Your task to perform on an android device: turn off data saver in the chrome app Image 0: 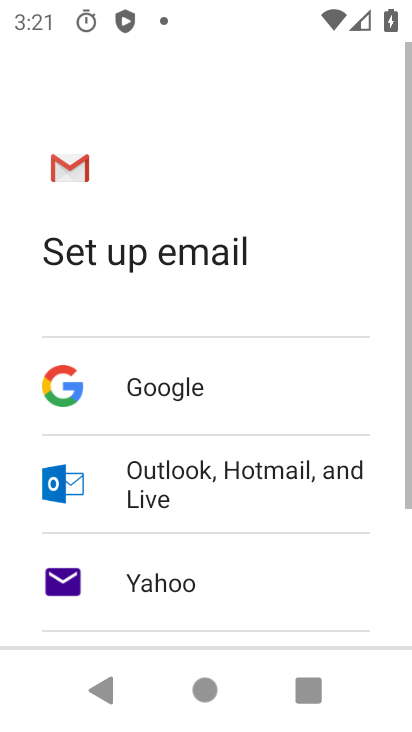
Step 0: press home button
Your task to perform on an android device: turn off data saver in the chrome app Image 1: 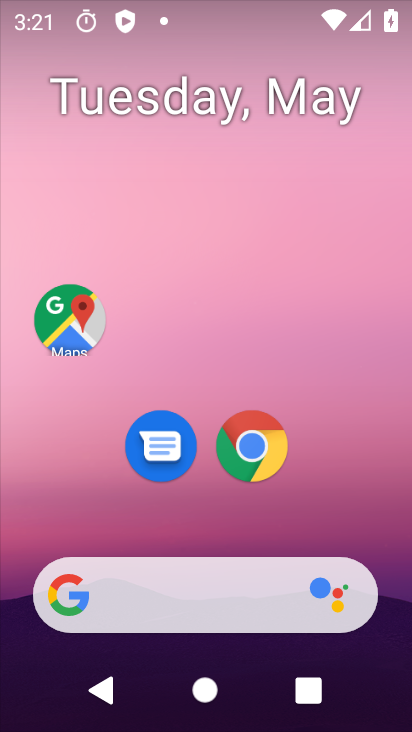
Step 1: click (252, 455)
Your task to perform on an android device: turn off data saver in the chrome app Image 2: 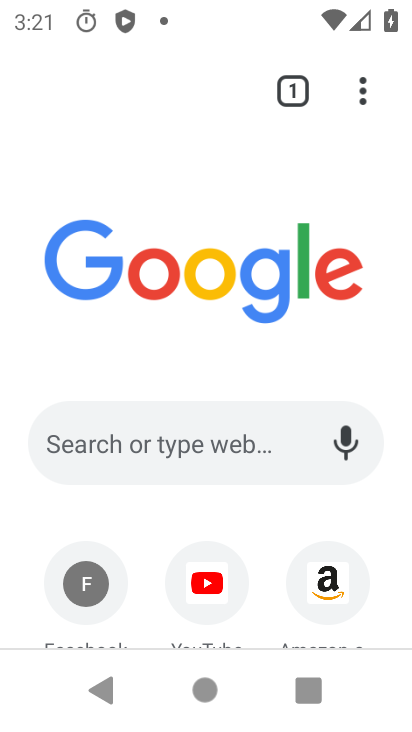
Step 2: click (363, 100)
Your task to perform on an android device: turn off data saver in the chrome app Image 3: 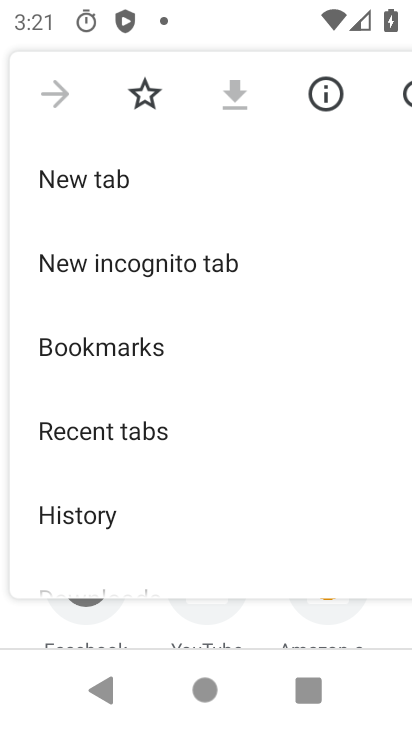
Step 3: drag from (118, 488) to (144, 140)
Your task to perform on an android device: turn off data saver in the chrome app Image 4: 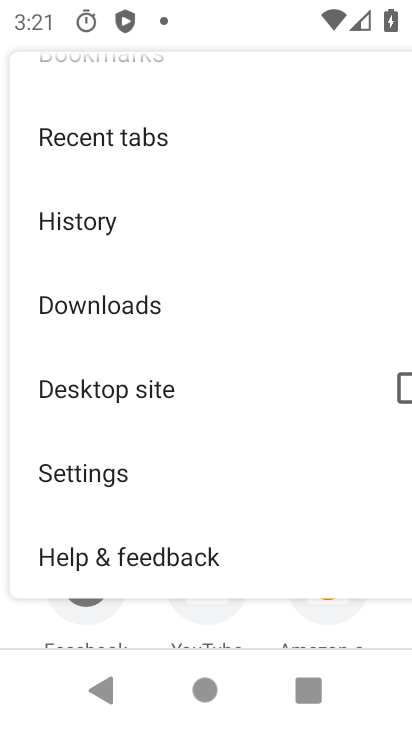
Step 4: click (86, 462)
Your task to perform on an android device: turn off data saver in the chrome app Image 5: 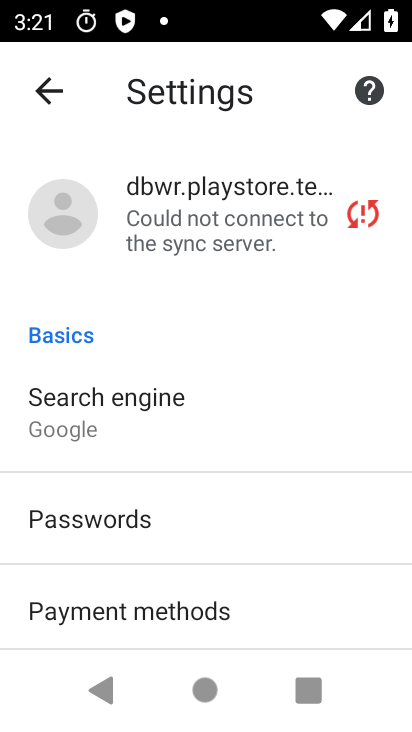
Step 5: drag from (251, 608) to (295, 271)
Your task to perform on an android device: turn off data saver in the chrome app Image 6: 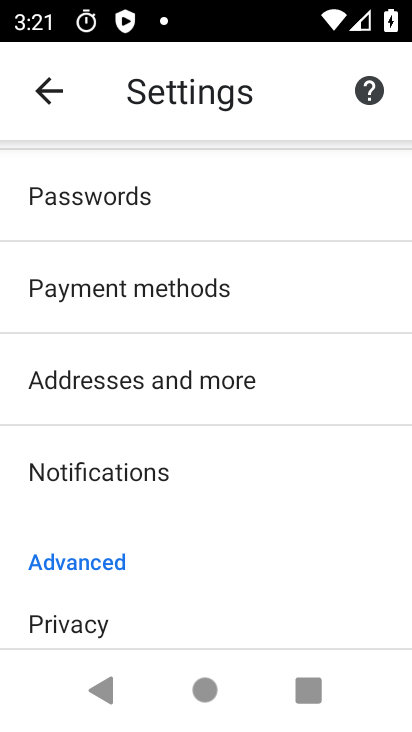
Step 6: drag from (193, 478) to (203, 293)
Your task to perform on an android device: turn off data saver in the chrome app Image 7: 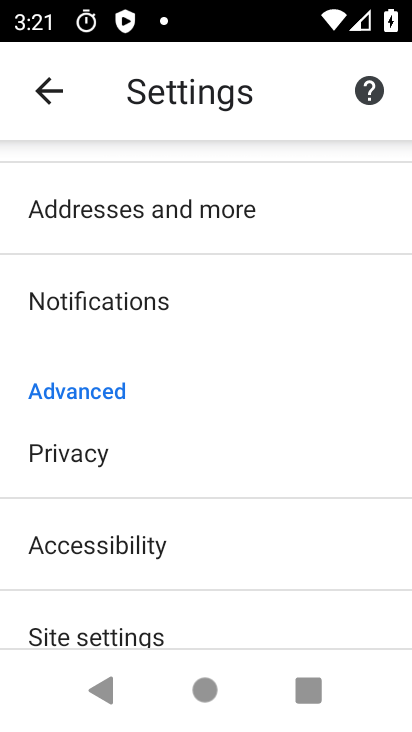
Step 7: drag from (139, 618) to (165, 282)
Your task to perform on an android device: turn off data saver in the chrome app Image 8: 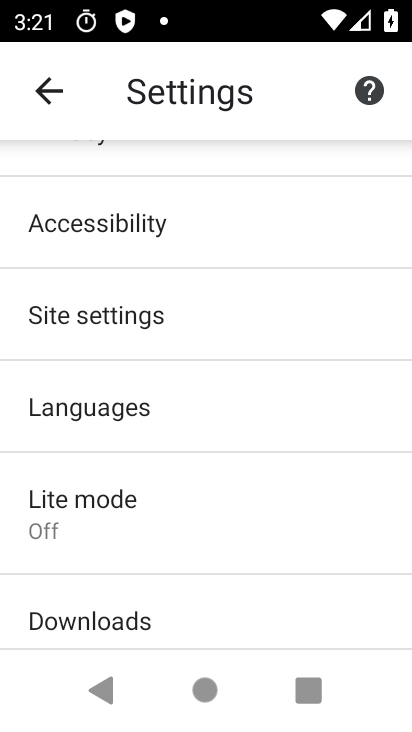
Step 8: click (77, 505)
Your task to perform on an android device: turn off data saver in the chrome app Image 9: 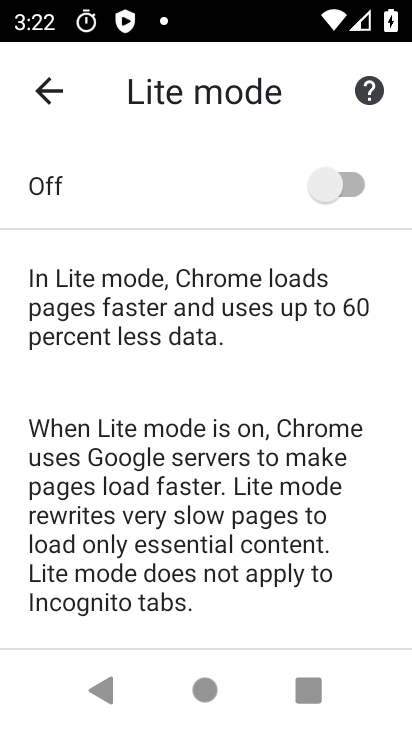
Step 9: task complete